Your task to perform on an android device: Search for vegetarian restaurants on Maps Image 0: 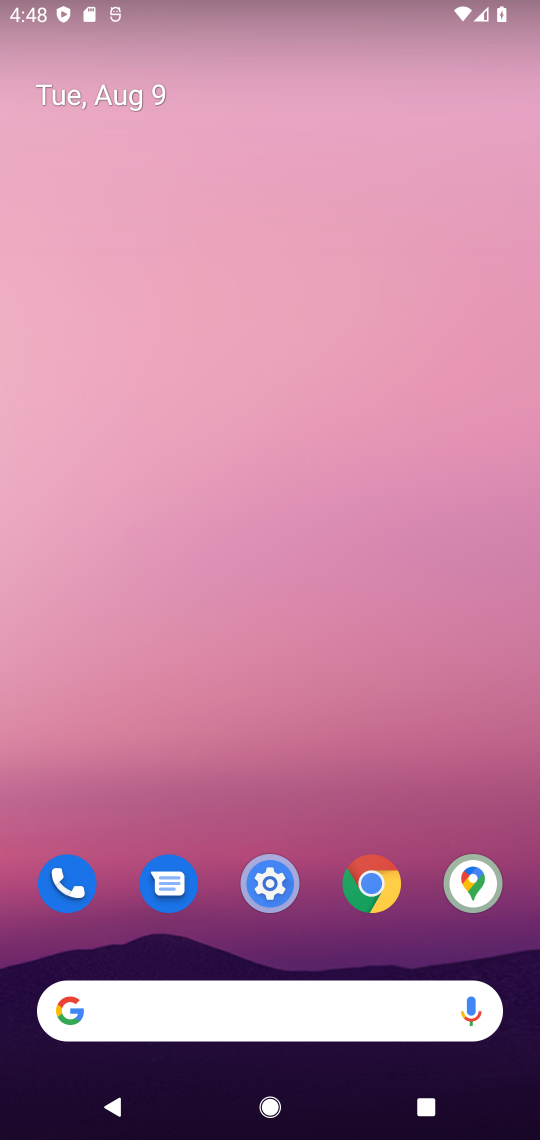
Step 0: drag from (235, 772) to (235, 179)
Your task to perform on an android device: Search for vegetarian restaurants on Maps Image 1: 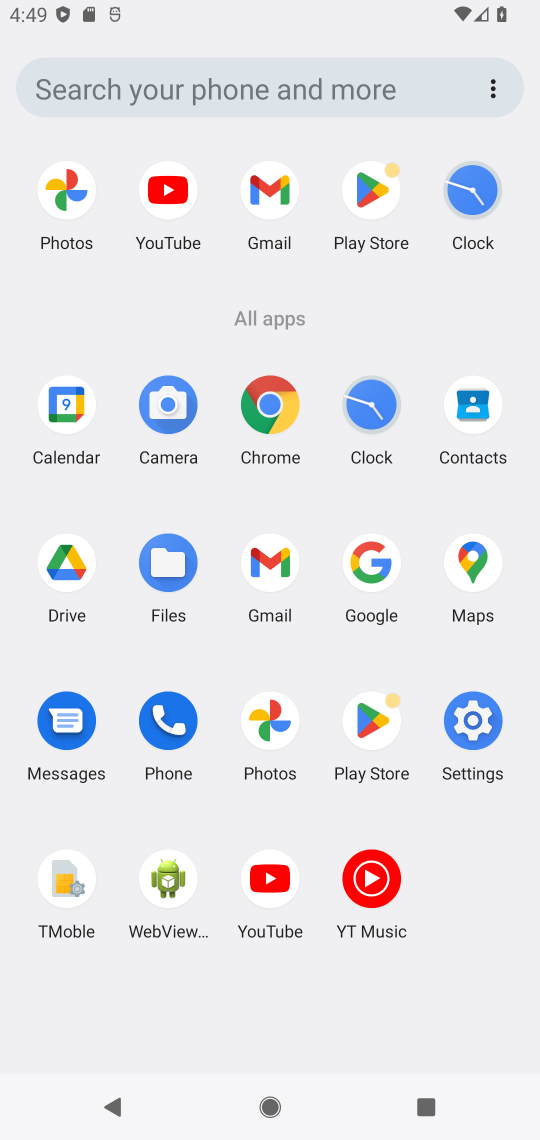
Step 1: click (466, 588)
Your task to perform on an android device: Search for vegetarian restaurants on Maps Image 2: 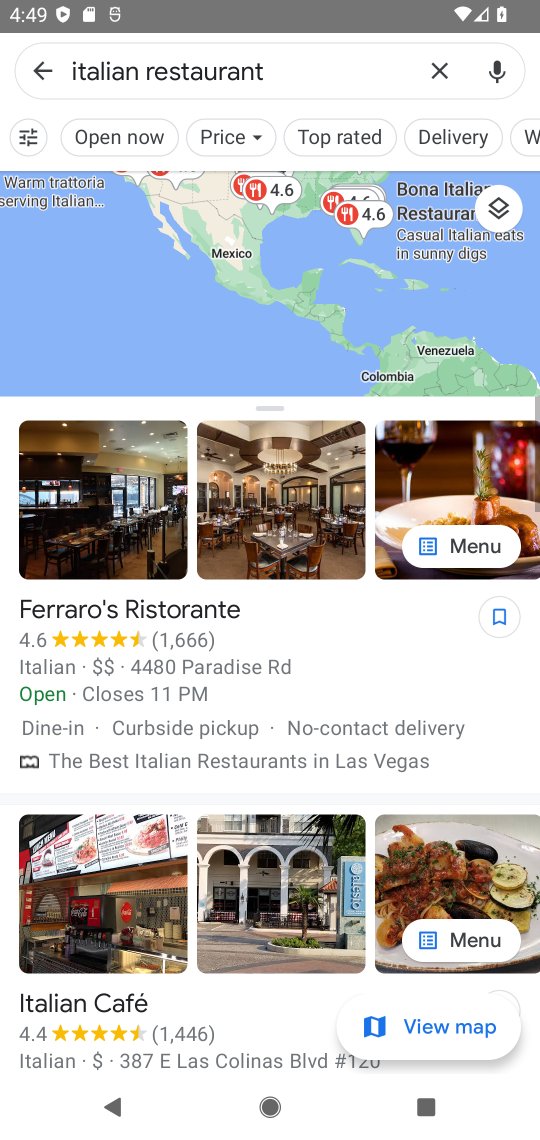
Step 2: click (432, 63)
Your task to perform on an android device: Search for vegetarian restaurants on Maps Image 3: 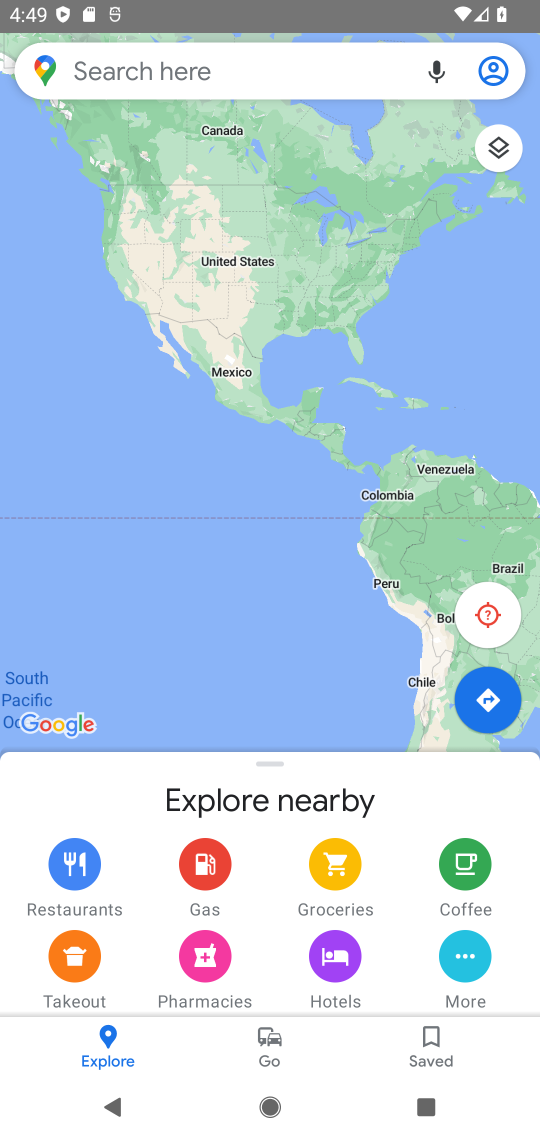
Step 3: type "vegetarian restaurants"
Your task to perform on an android device: Search for vegetarian restaurants on Maps Image 4: 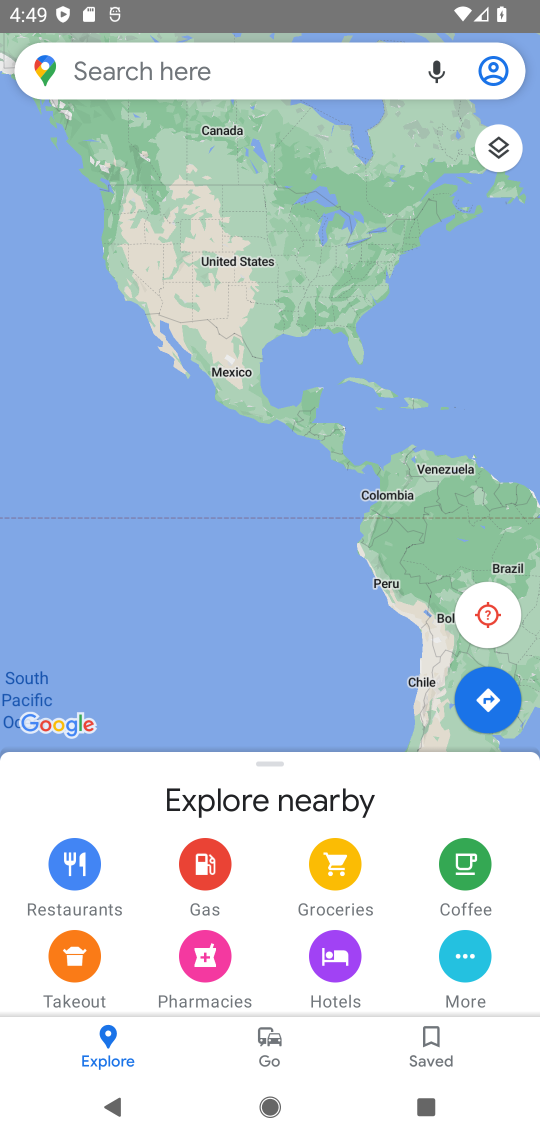
Step 4: click (134, 56)
Your task to perform on an android device: Search for vegetarian restaurants on Maps Image 5: 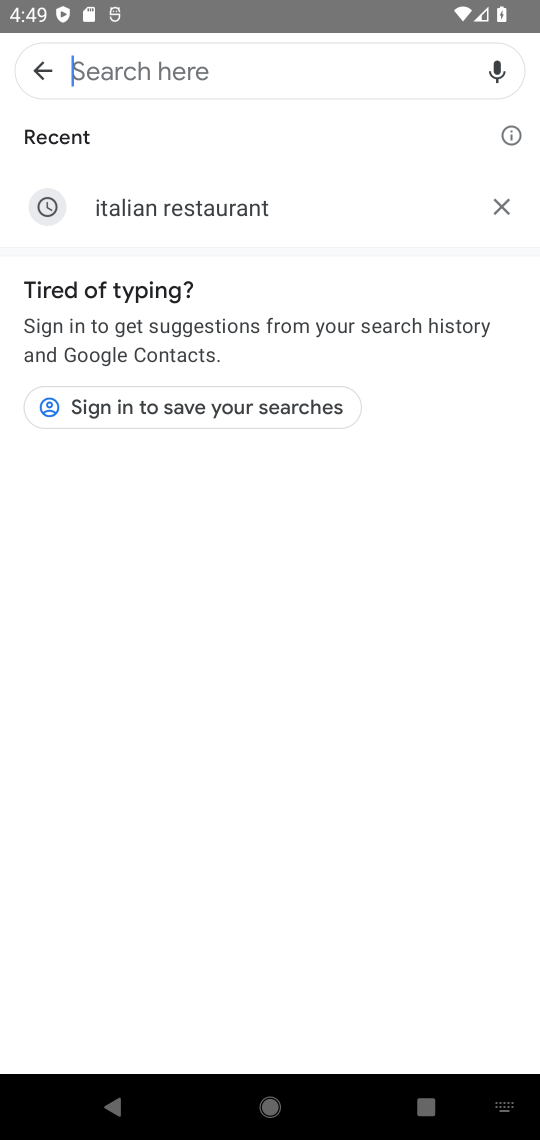
Step 5: type "vegetarian restaurants"
Your task to perform on an android device: Search for vegetarian restaurants on Maps Image 6: 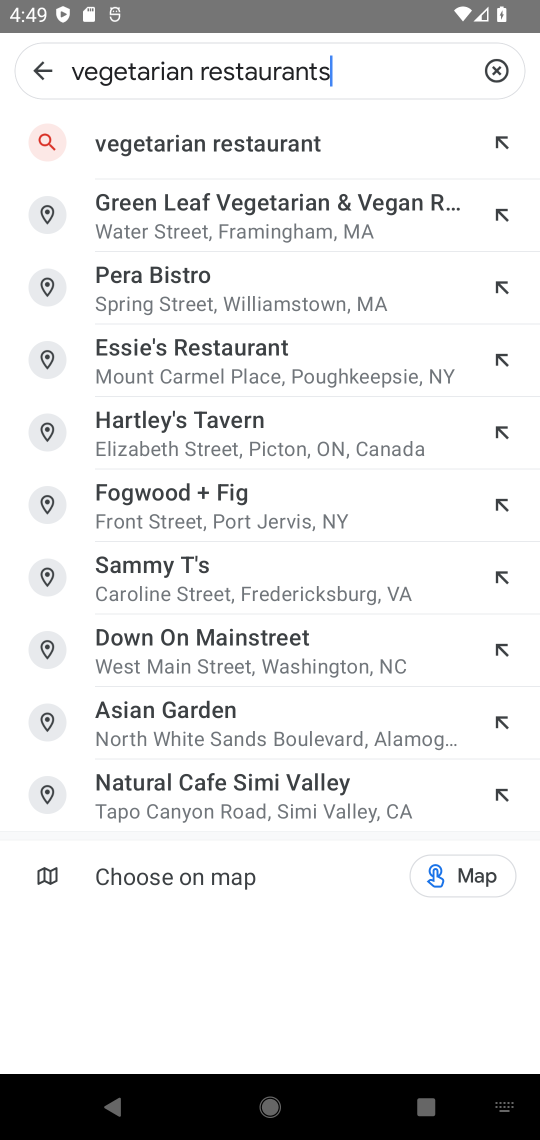
Step 6: click (218, 158)
Your task to perform on an android device: Search for vegetarian restaurants on Maps Image 7: 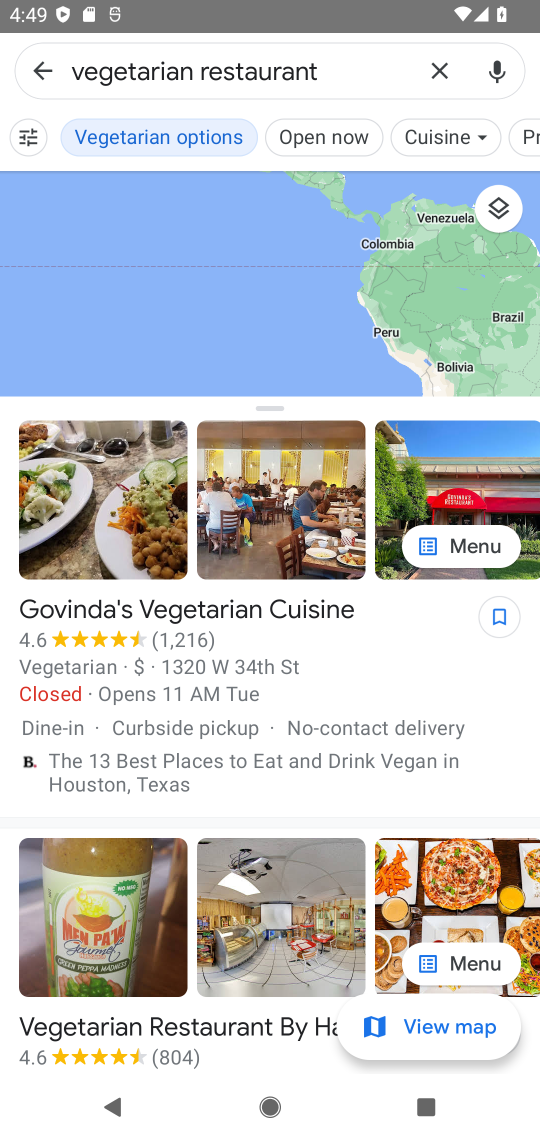
Step 7: task complete